Your task to perform on an android device: find snoozed emails in the gmail app Image 0: 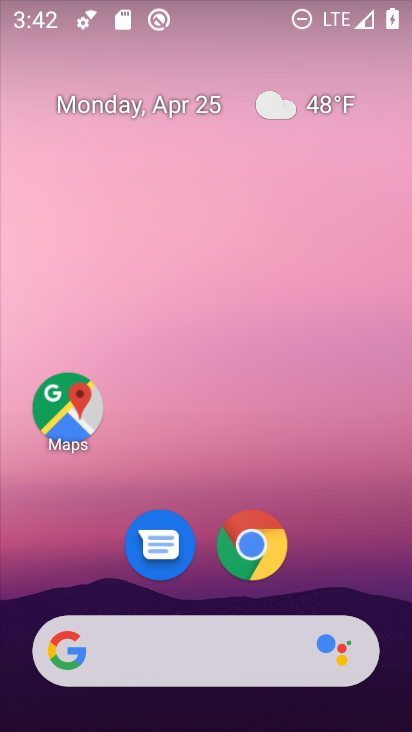
Step 0: drag from (346, 545) to (204, 41)
Your task to perform on an android device: find snoozed emails in the gmail app Image 1: 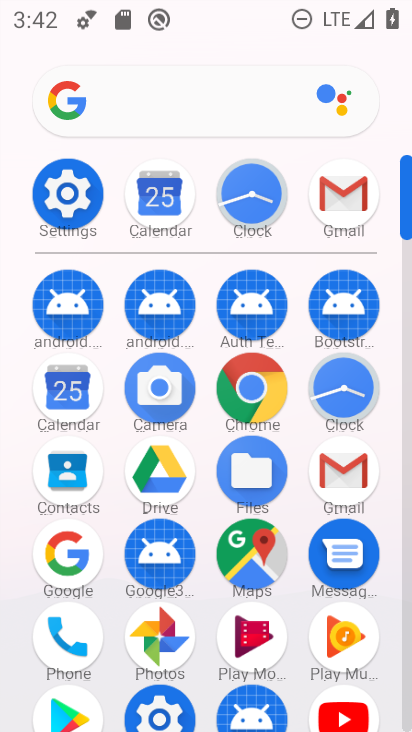
Step 1: click (327, 185)
Your task to perform on an android device: find snoozed emails in the gmail app Image 2: 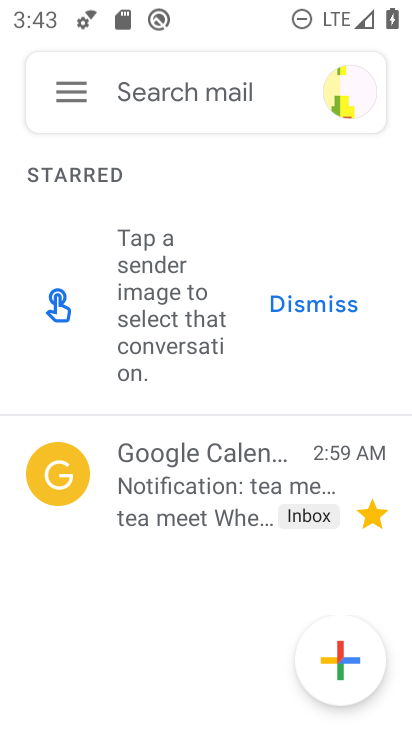
Step 2: click (72, 85)
Your task to perform on an android device: find snoozed emails in the gmail app Image 3: 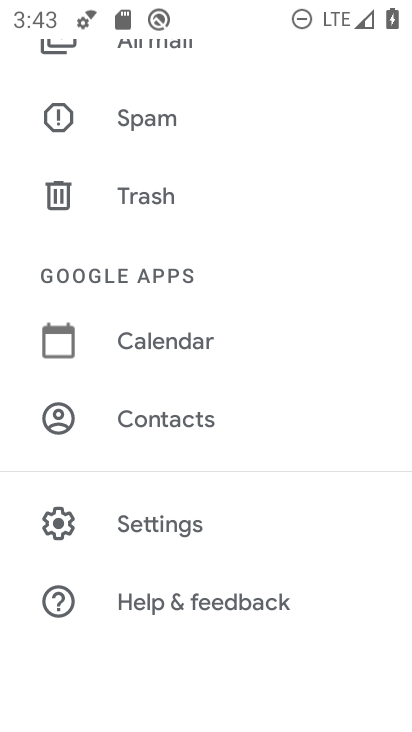
Step 3: drag from (248, 129) to (196, 645)
Your task to perform on an android device: find snoozed emails in the gmail app Image 4: 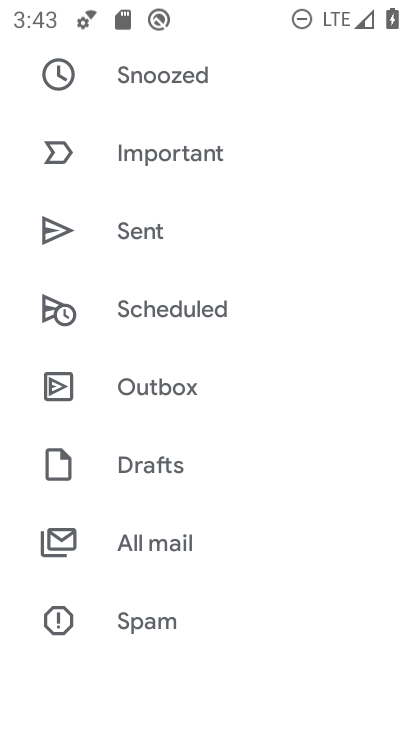
Step 4: click (214, 72)
Your task to perform on an android device: find snoozed emails in the gmail app Image 5: 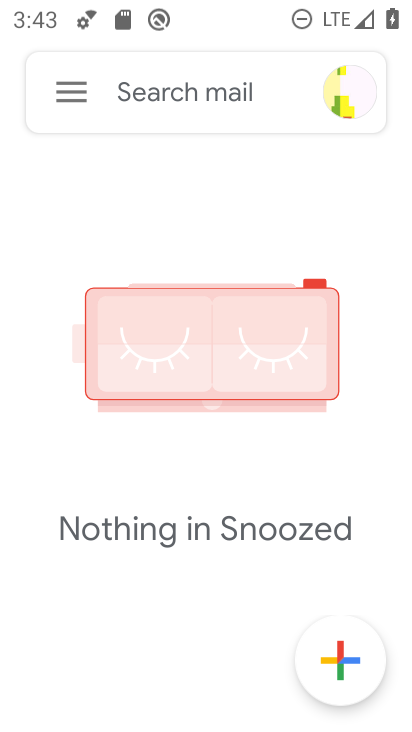
Step 5: task complete